Your task to perform on an android device: Search for pizza restaurants on Maps Image 0: 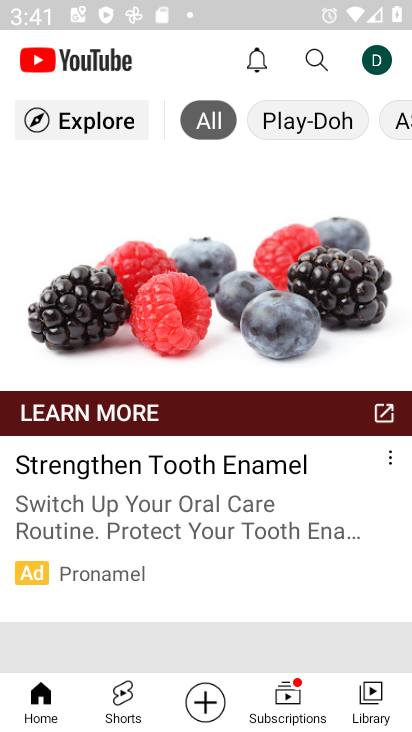
Step 0: press home button
Your task to perform on an android device: Search for pizza restaurants on Maps Image 1: 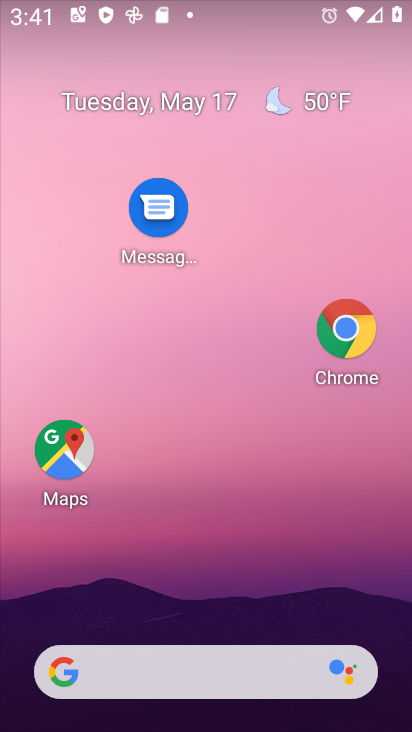
Step 1: click (62, 469)
Your task to perform on an android device: Search for pizza restaurants on Maps Image 2: 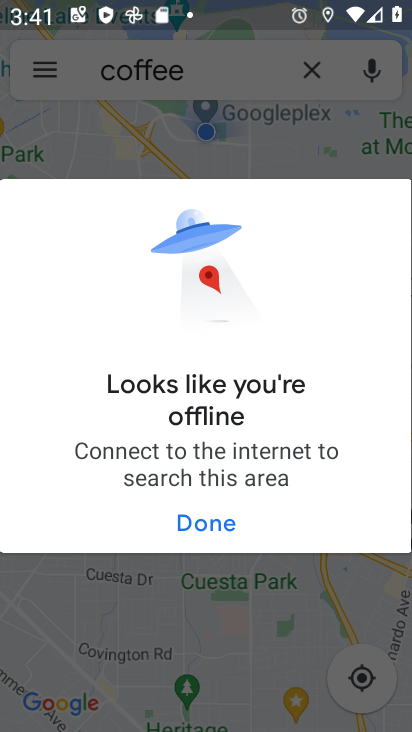
Step 2: click (212, 534)
Your task to perform on an android device: Search for pizza restaurants on Maps Image 3: 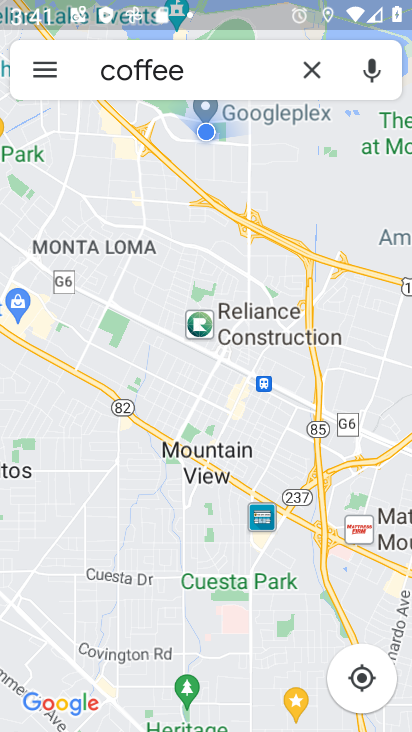
Step 3: click (294, 80)
Your task to perform on an android device: Search for pizza restaurants on Maps Image 4: 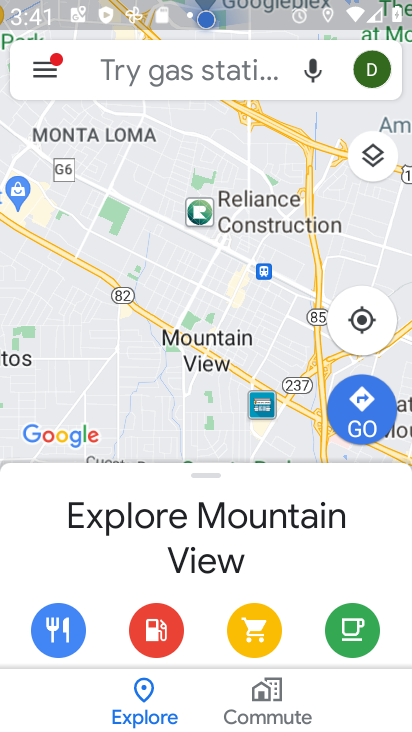
Step 4: click (179, 72)
Your task to perform on an android device: Search for pizza restaurants on Maps Image 5: 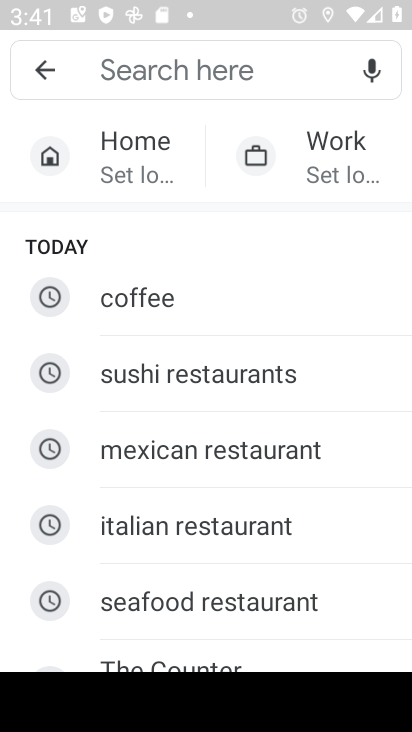
Step 5: drag from (145, 554) to (150, 366)
Your task to perform on an android device: Search for pizza restaurants on Maps Image 6: 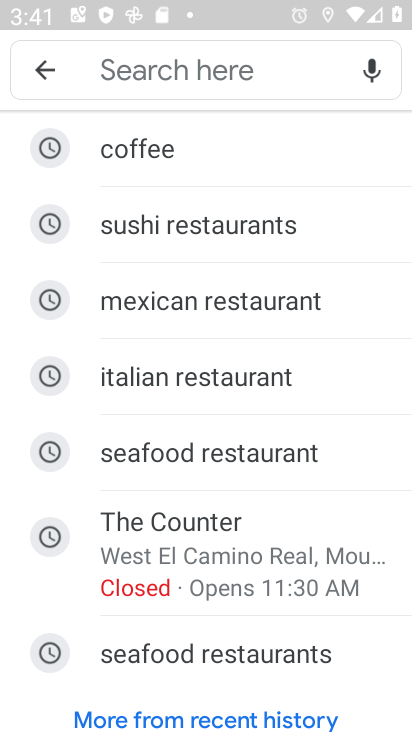
Step 6: click (204, 76)
Your task to perform on an android device: Search for pizza restaurants on Maps Image 7: 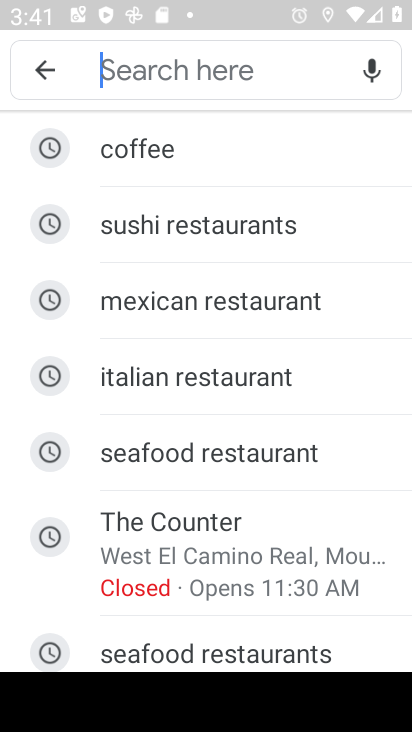
Step 7: type "pizza"
Your task to perform on an android device: Search for pizza restaurants on Maps Image 8: 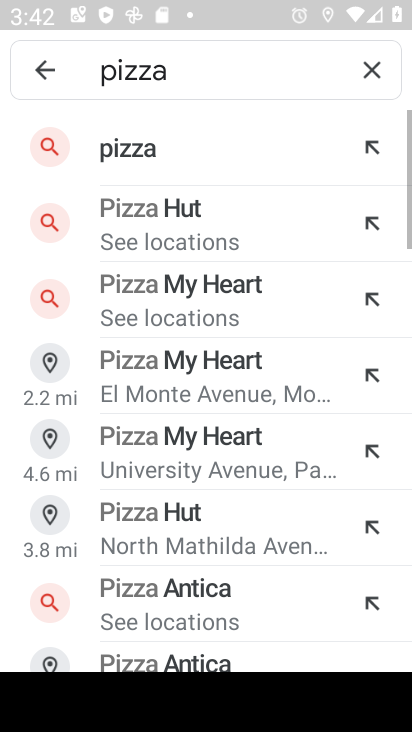
Step 8: click (254, 178)
Your task to perform on an android device: Search for pizza restaurants on Maps Image 9: 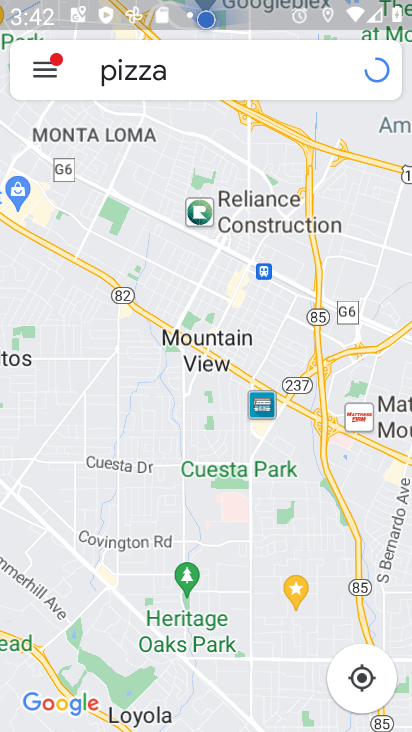
Step 9: task complete